Your task to perform on an android device: toggle show notifications on the lock screen Image 0: 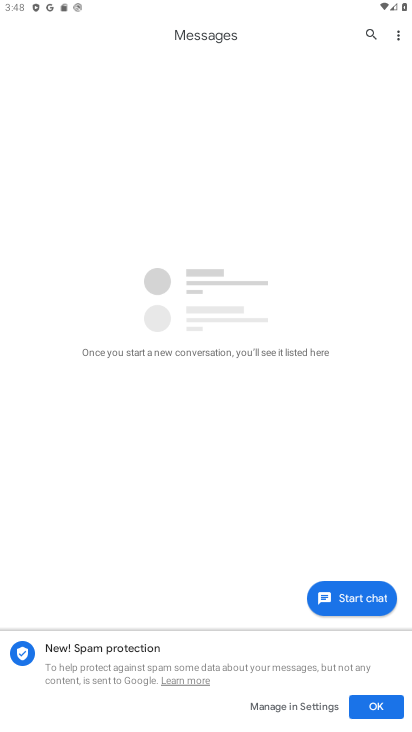
Step 0: press home button
Your task to perform on an android device: toggle show notifications on the lock screen Image 1: 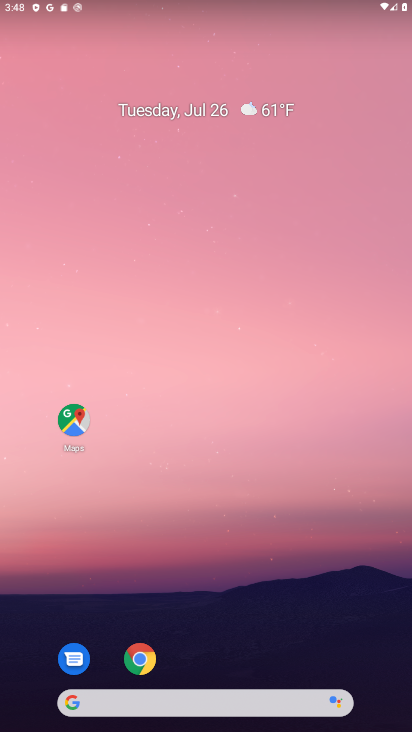
Step 1: drag from (301, 603) to (240, 43)
Your task to perform on an android device: toggle show notifications on the lock screen Image 2: 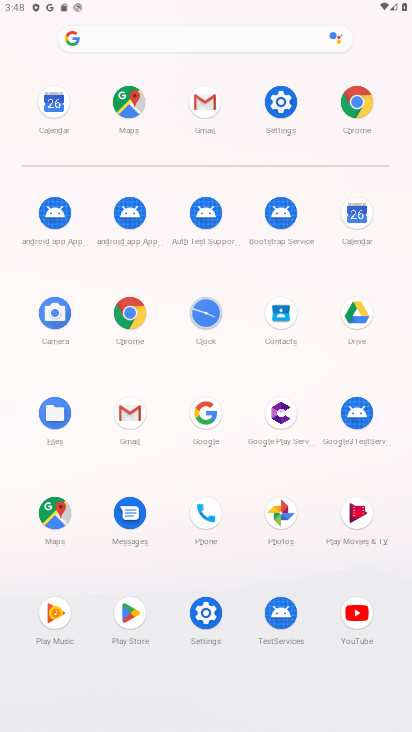
Step 2: click (271, 98)
Your task to perform on an android device: toggle show notifications on the lock screen Image 3: 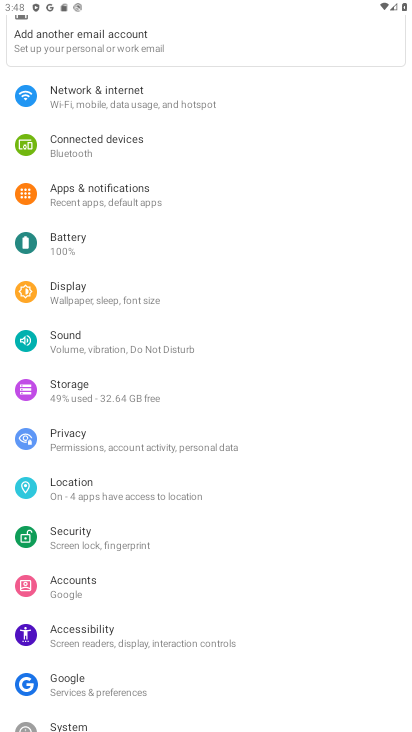
Step 3: click (119, 210)
Your task to perform on an android device: toggle show notifications on the lock screen Image 4: 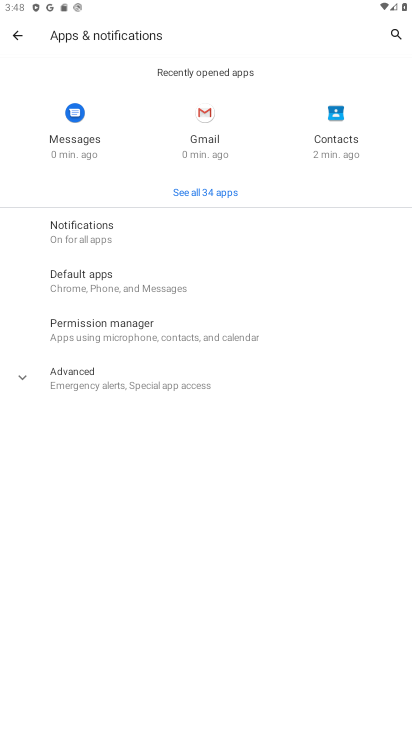
Step 4: click (138, 235)
Your task to perform on an android device: toggle show notifications on the lock screen Image 5: 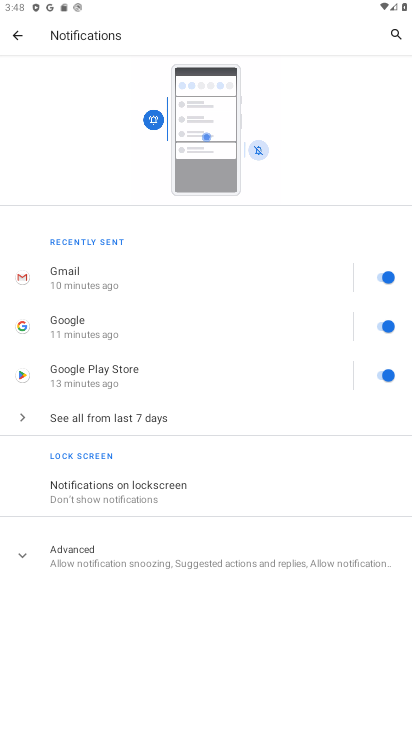
Step 5: click (162, 490)
Your task to perform on an android device: toggle show notifications on the lock screen Image 6: 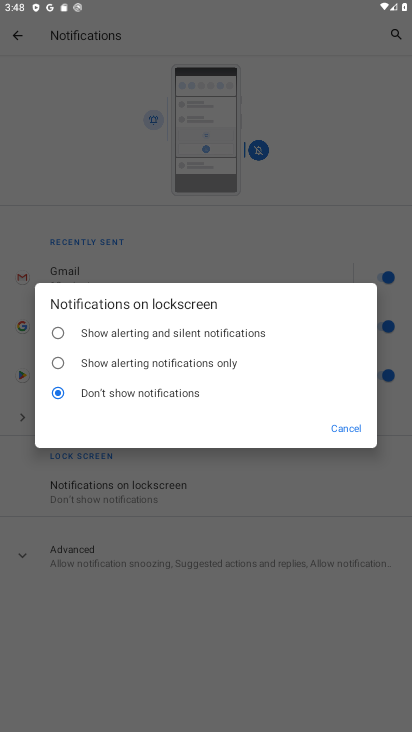
Step 6: click (174, 368)
Your task to perform on an android device: toggle show notifications on the lock screen Image 7: 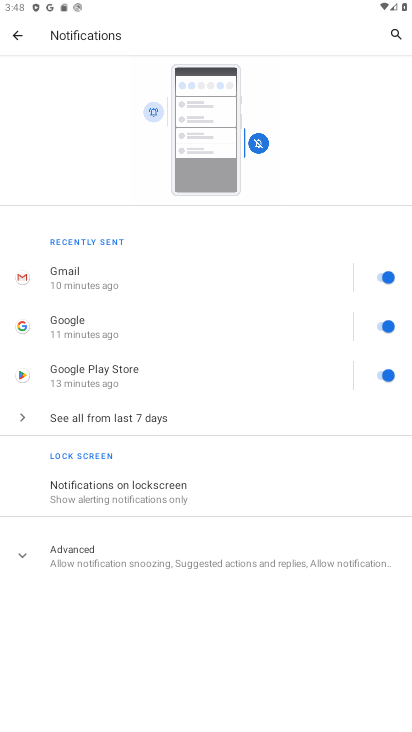
Step 7: task complete